Your task to perform on an android device: turn off picture-in-picture Image 0: 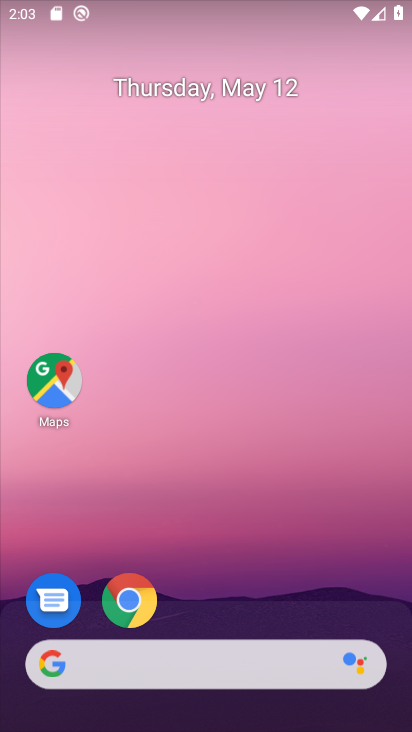
Step 0: click (121, 586)
Your task to perform on an android device: turn off picture-in-picture Image 1: 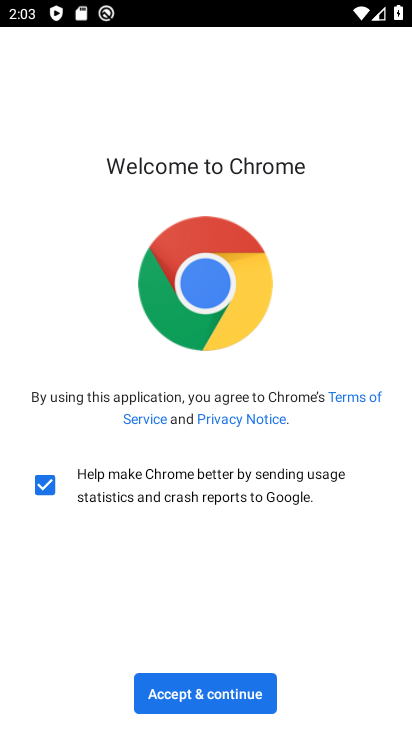
Step 1: press home button
Your task to perform on an android device: turn off picture-in-picture Image 2: 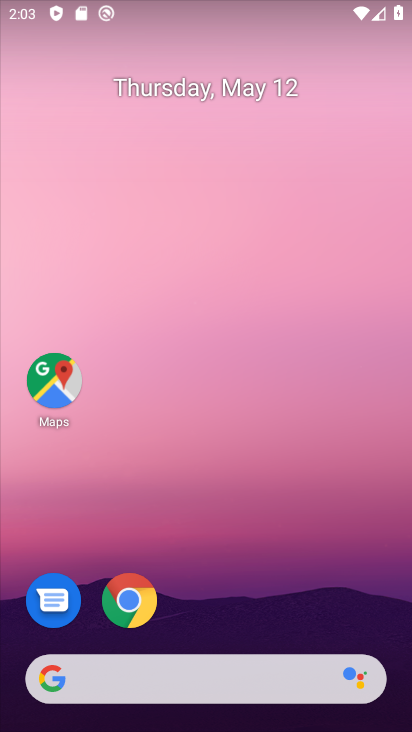
Step 2: click (132, 599)
Your task to perform on an android device: turn off picture-in-picture Image 3: 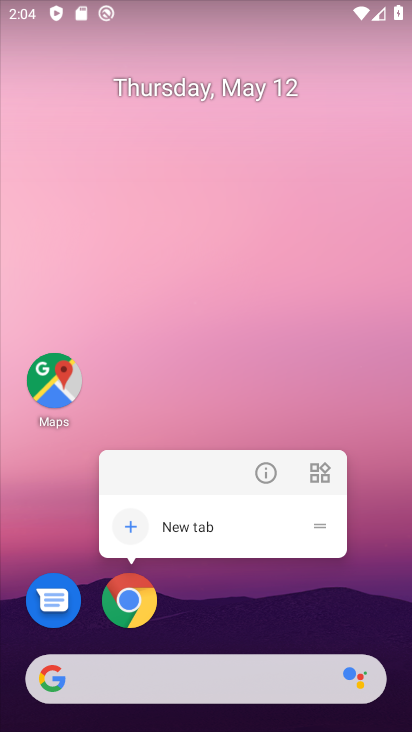
Step 3: click (268, 478)
Your task to perform on an android device: turn off picture-in-picture Image 4: 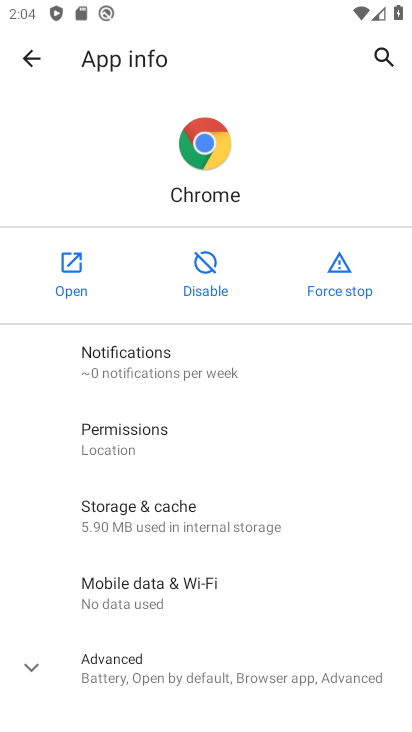
Step 4: drag from (181, 525) to (198, 168)
Your task to perform on an android device: turn off picture-in-picture Image 5: 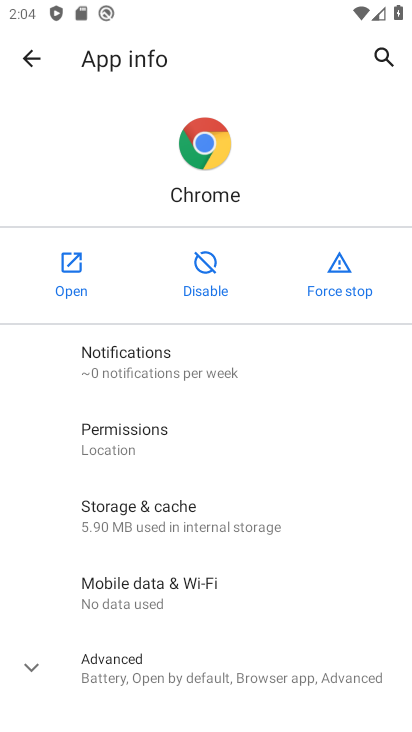
Step 5: drag from (176, 608) to (205, 394)
Your task to perform on an android device: turn off picture-in-picture Image 6: 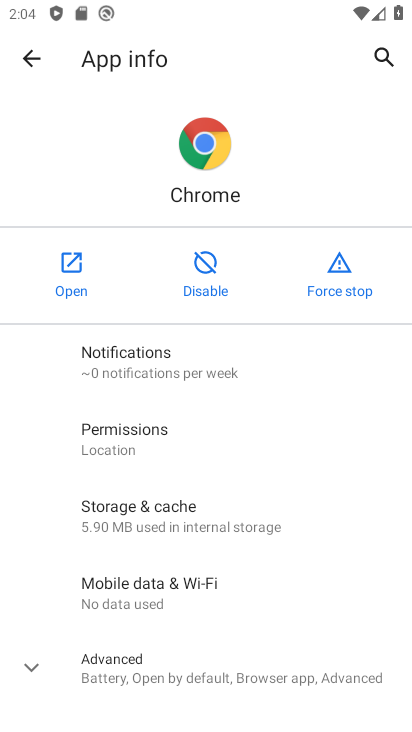
Step 6: drag from (189, 599) to (208, 345)
Your task to perform on an android device: turn off picture-in-picture Image 7: 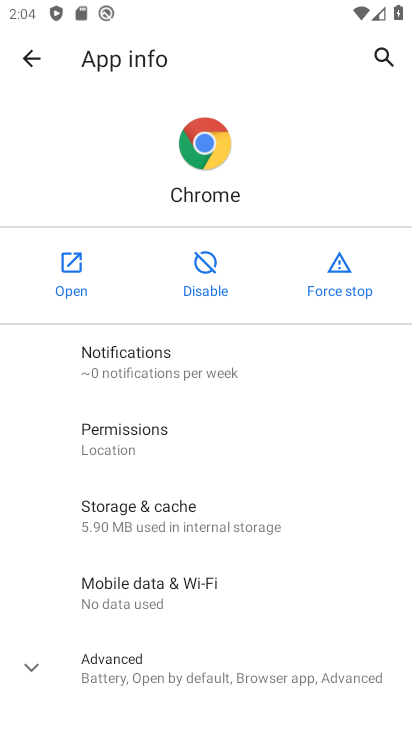
Step 7: click (126, 670)
Your task to perform on an android device: turn off picture-in-picture Image 8: 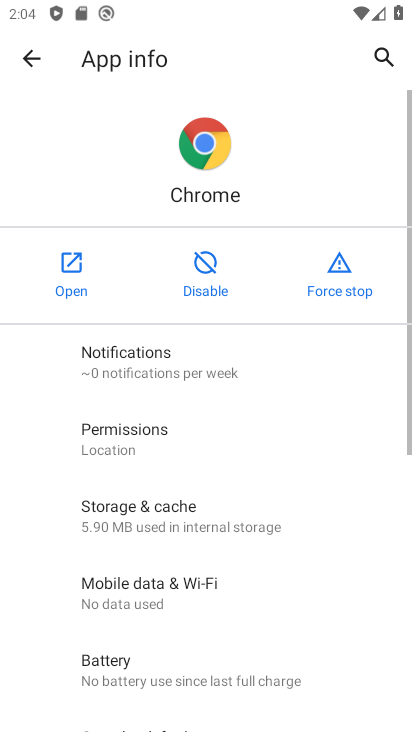
Step 8: drag from (146, 652) to (170, 310)
Your task to perform on an android device: turn off picture-in-picture Image 9: 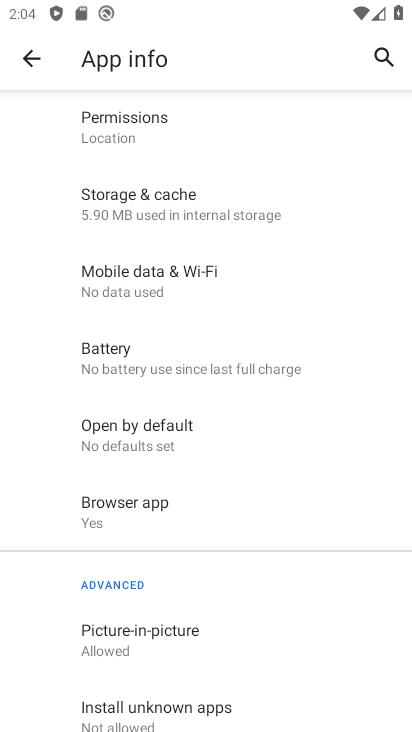
Step 9: click (161, 642)
Your task to perform on an android device: turn off picture-in-picture Image 10: 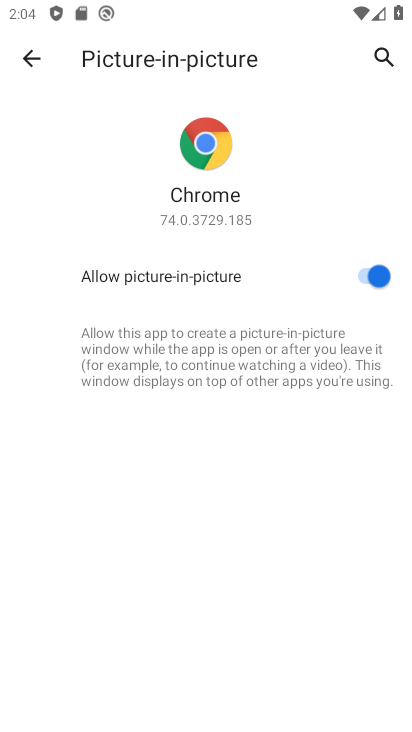
Step 10: click (339, 287)
Your task to perform on an android device: turn off picture-in-picture Image 11: 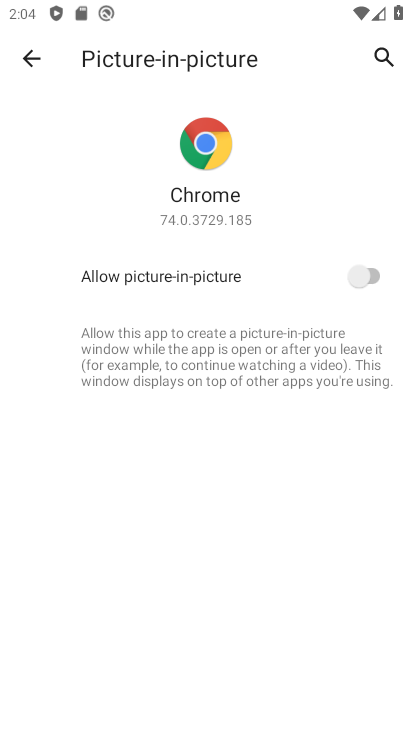
Step 11: task complete